Your task to perform on an android device: delete browsing data in the chrome app Image 0: 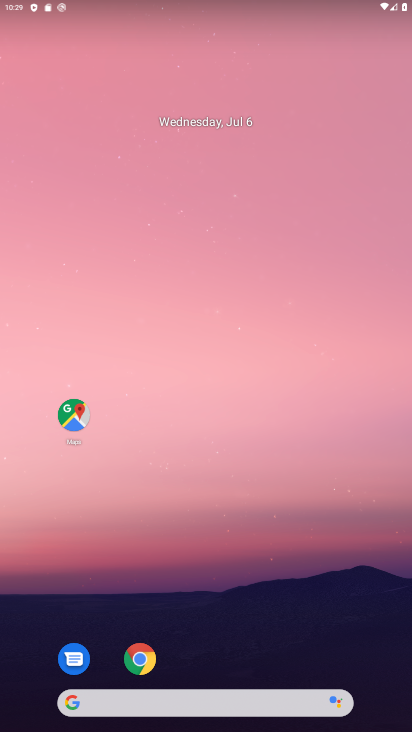
Step 0: click (143, 664)
Your task to perform on an android device: delete browsing data in the chrome app Image 1: 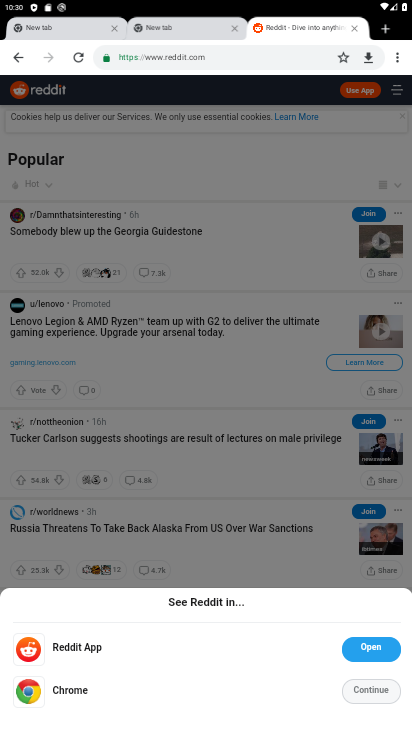
Step 1: drag from (400, 58) to (268, 171)
Your task to perform on an android device: delete browsing data in the chrome app Image 2: 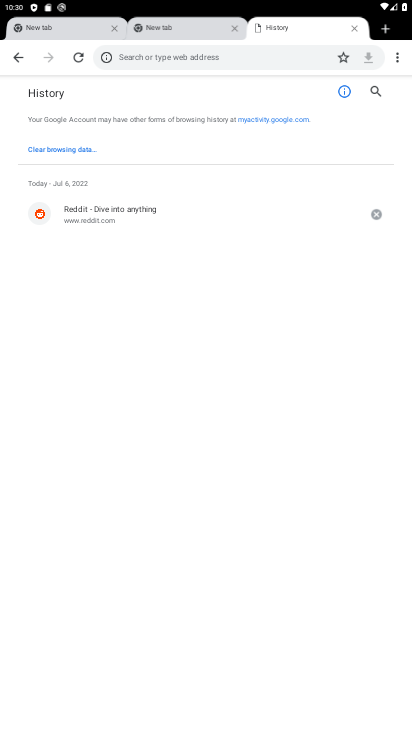
Step 2: click (61, 155)
Your task to perform on an android device: delete browsing data in the chrome app Image 3: 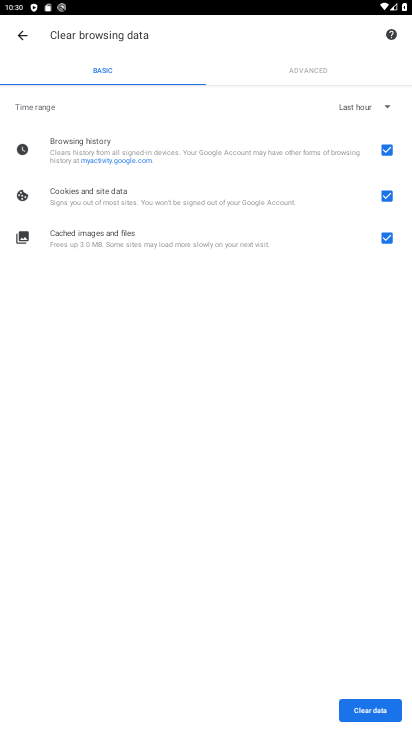
Step 3: click (379, 704)
Your task to perform on an android device: delete browsing data in the chrome app Image 4: 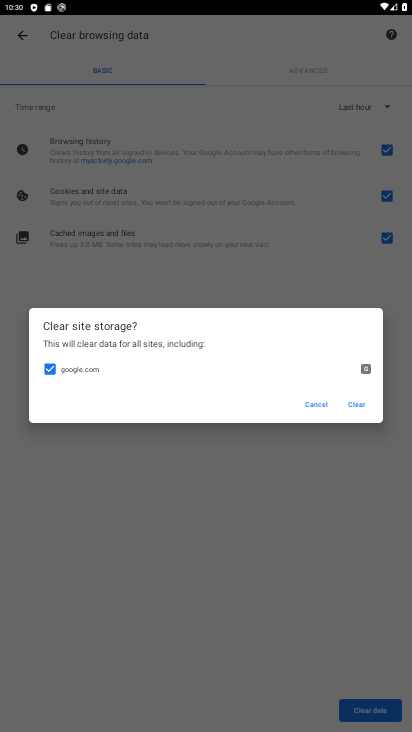
Step 4: click (358, 406)
Your task to perform on an android device: delete browsing data in the chrome app Image 5: 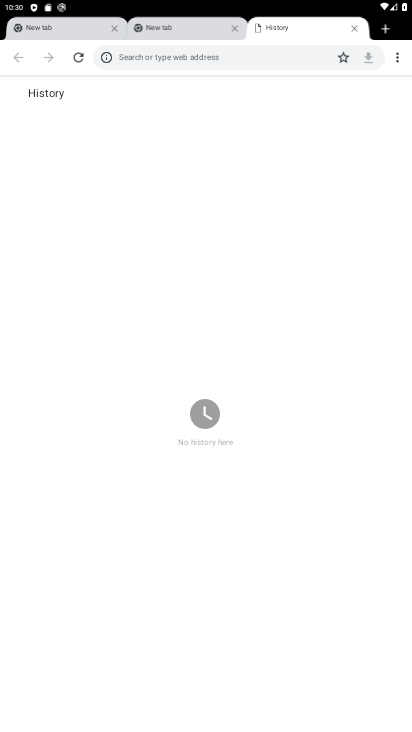
Step 5: task complete